Your task to perform on an android device: turn on the 12-hour format for clock Image 0: 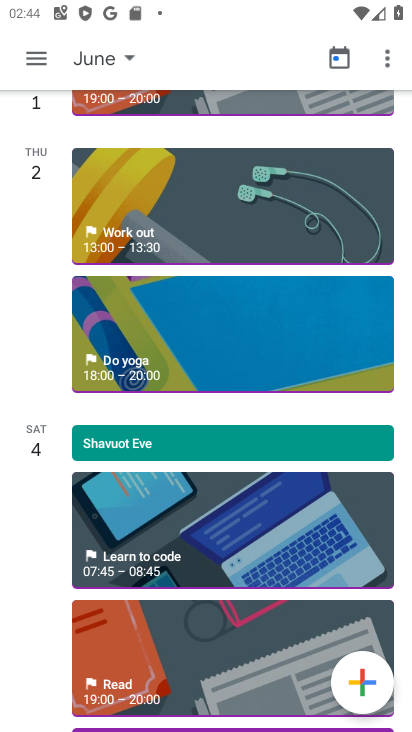
Step 0: drag from (194, 654) to (208, 256)
Your task to perform on an android device: turn on the 12-hour format for clock Image 1: 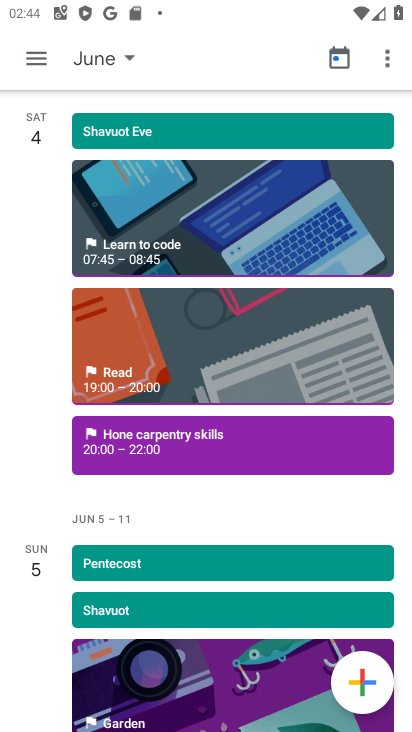
Step 1: click (36, 56)
Your task to perform on an android device: turn on the 12-hour format for clock Image 2: 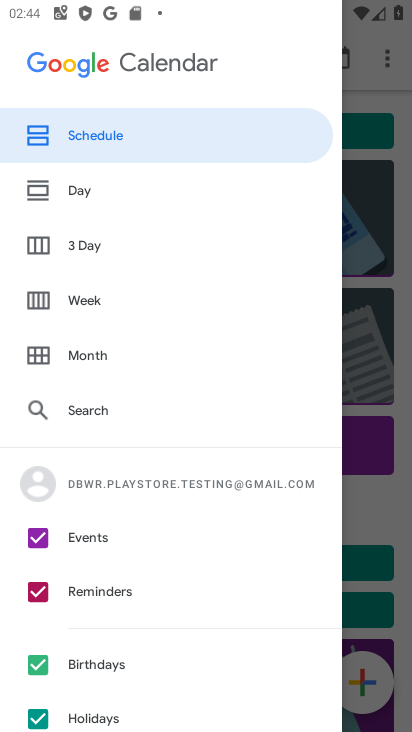
Step 2: drag from (181, 578) to (203, 306)
Your task to perform on an android device: turn on the 12-hour format for clock Image 3: 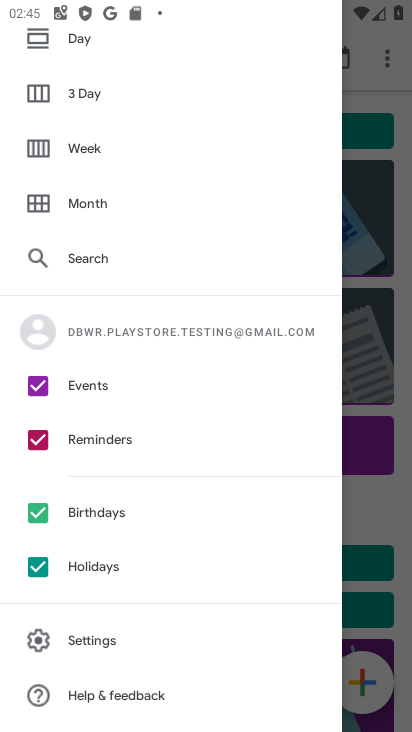
Step 3: press home button
Your task to perform on an android device: turn on the 12-hour format for clock Image 4: 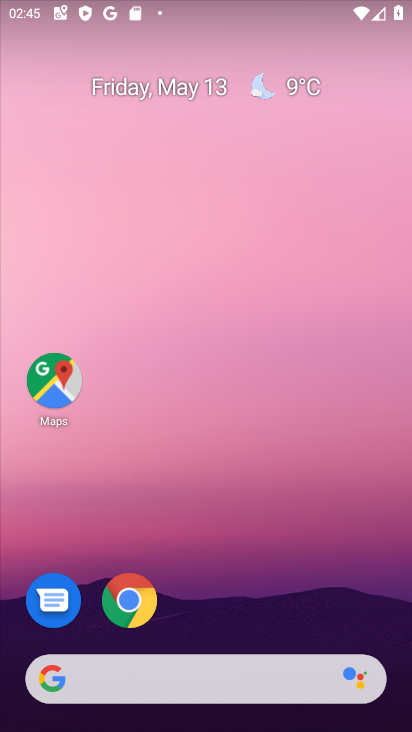
Step 4: drag from (199, 665) to (320, 212)
Your task to perform on an android device: turn on the 12-hour format for clock Image 5: 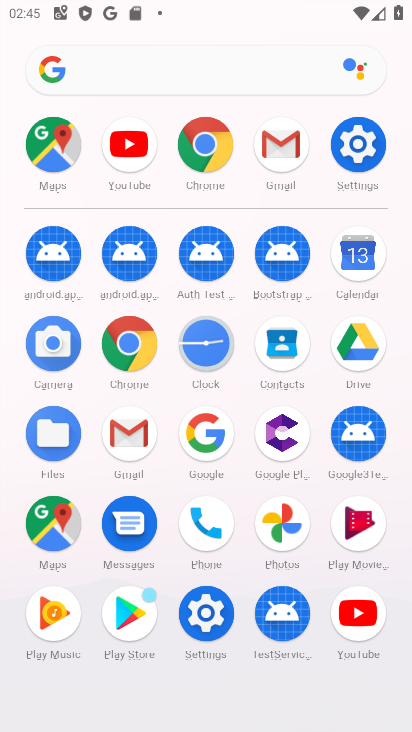
Step 5: click (225, 340)
Your task to perform on an android device: turn on the 12-hour format for clock Image 6: 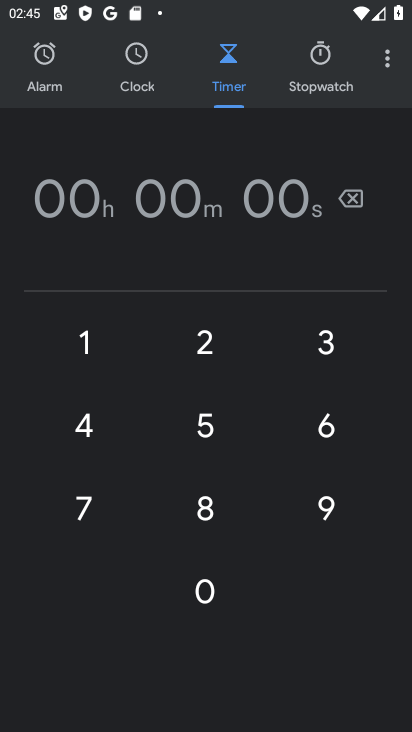
Step 6: click (390, 62)
Your task to perform on an android device: turn on the 12-hour format for clock Image 7: 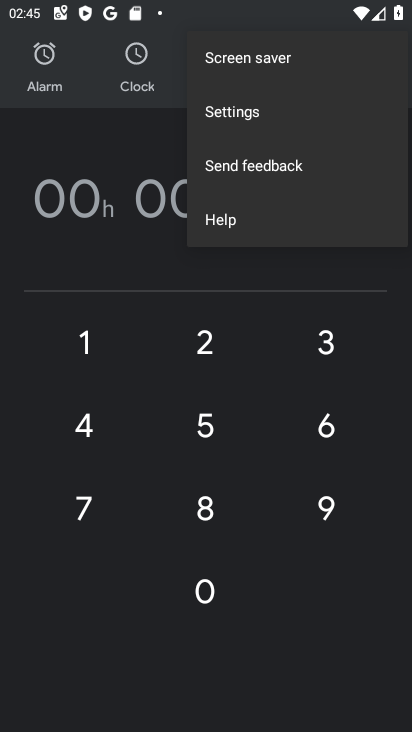
Step 7: click (298, 113)
Your task to perform on an android device: turn on the 12-hour format for clock Image 8: 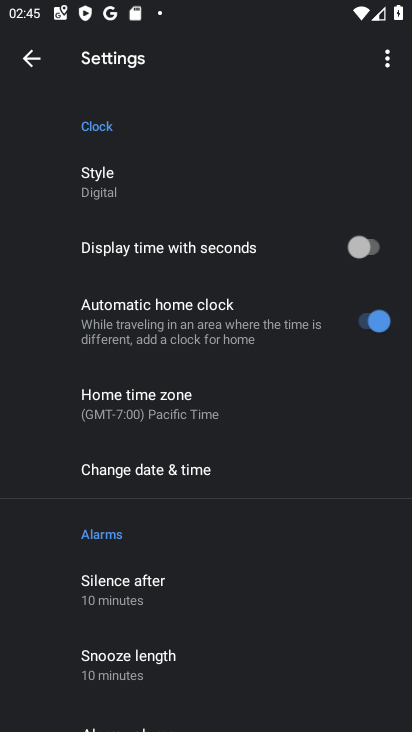
Step 8: click (131, 449)
Your task to perform on an android device: turn on the 12-hour format for clock Image 9: 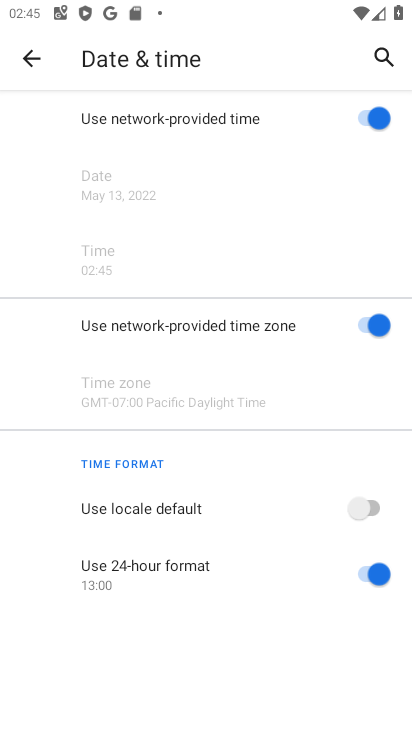
Step 9: click (367, 566)
Your task to perform on an android device: turn on the 12-hour format for clock Image 10: 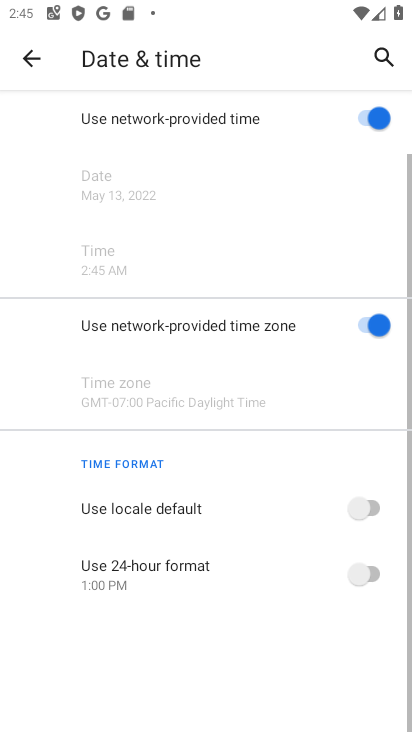
Step 10: task complete